Your task to perform on an android device: turn off smart reply in the gmail app Image 0: 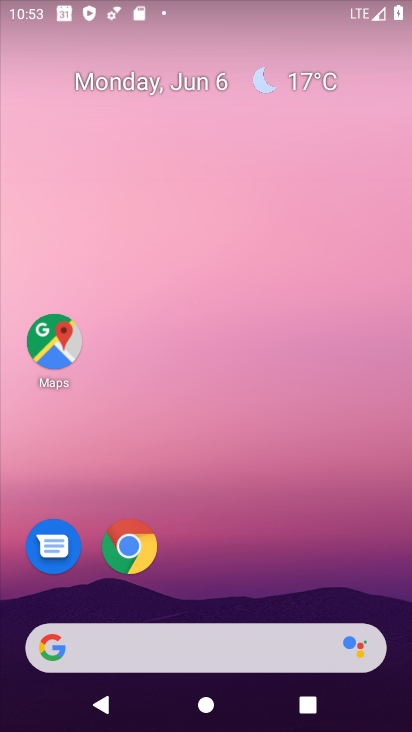
Step 0: drag from (257, 514) to (225, 19)
Your task to perform on an android device: turn off smart reply in the gmail app Image 1: 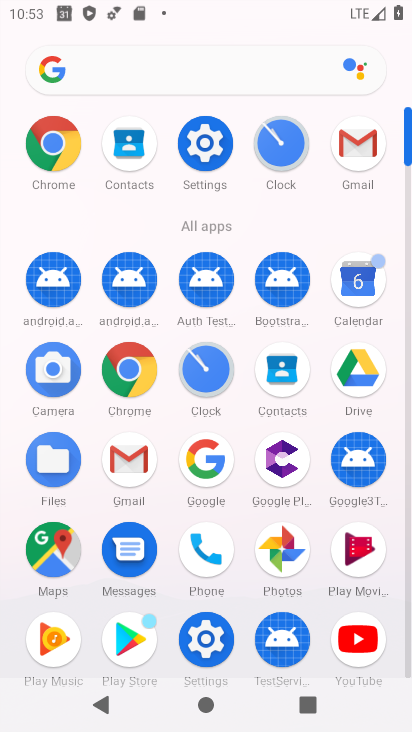
Step 1: click (349, 139)
Your task to perform on an android device: turn off smart reply in the gmail app Image 2: 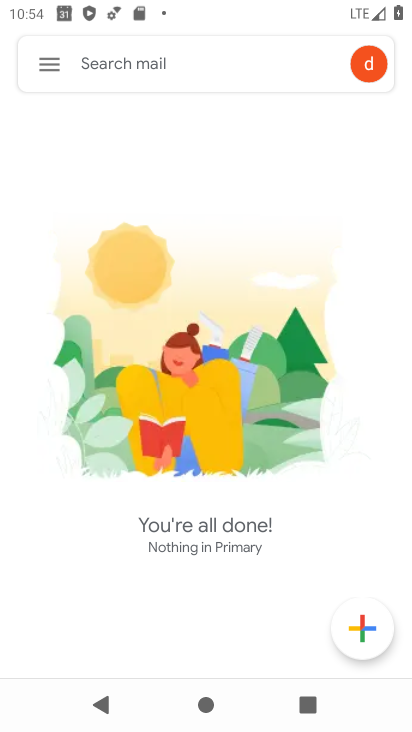
Step 2: click (45, 65)
Your task to perform on an android device: turn off smart reply in the gmail app Image 3: 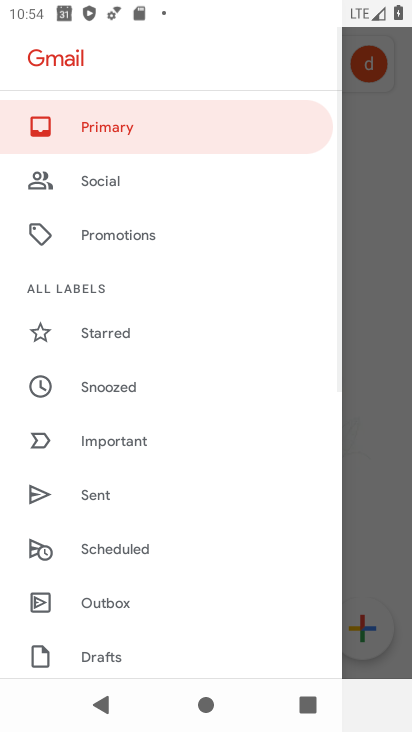
Step 3: drag from (149, 605) to (318, 145)
Your task to perform on an android device: turn off smart reply in the gmail app Image 4: 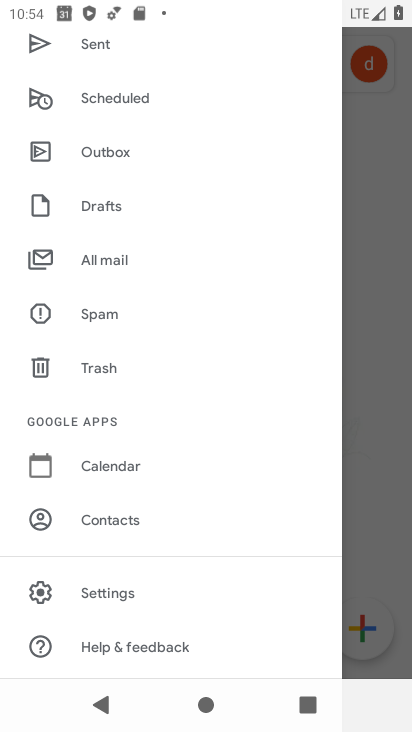
Step 4: click (123, 593)
Your task to perform on an android device: turn off smart reply in the gmail app Image 5: 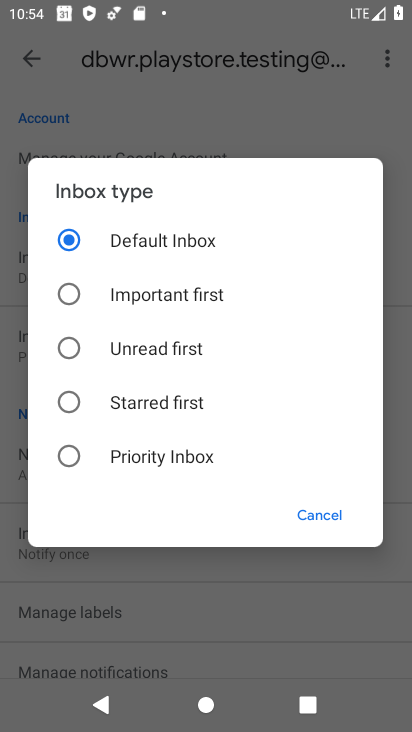
Step 5: click (338, 520)
Your task to perform on an android device: turn off smart reply in the gmail app Image 6: 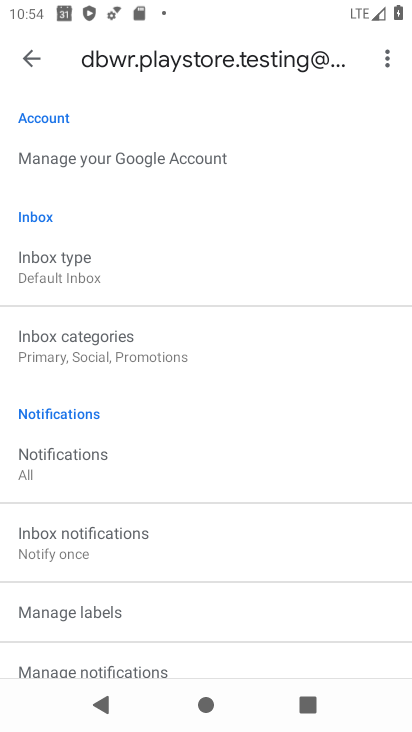
Step 6: drag from (126, 563) to (256, 161)
Your task to perform on an android device: turn off smart reply in the gmail app Image 7: 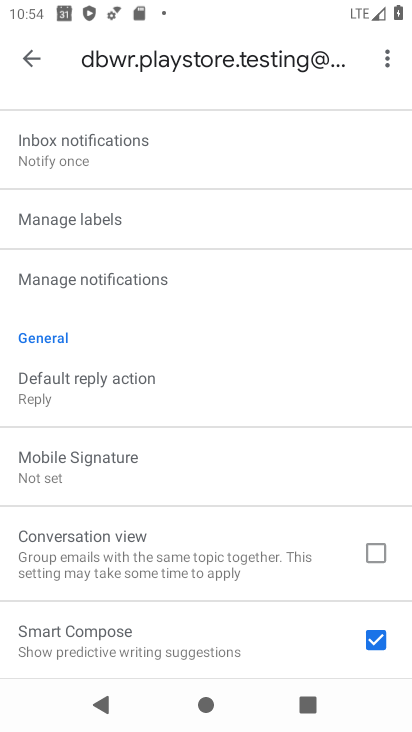
Step 7: drag from (208, 599) to (280, 269)
Your task to perform on an android device: turn off smart reply in the gmail app Image 8: 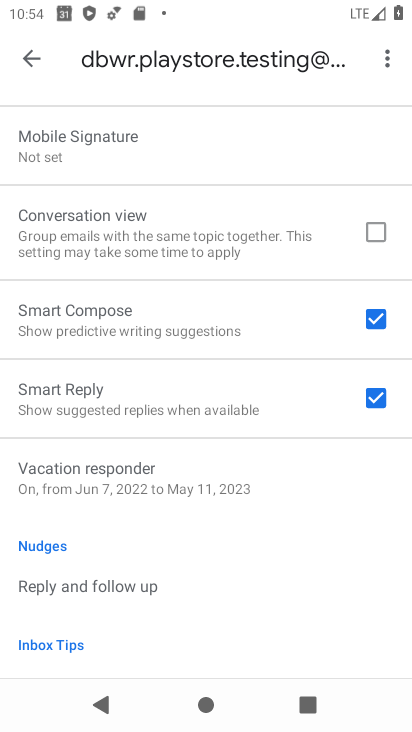
Step 8: click (379, 393)
Your task to perform on an android device: turn off smart reply in the gmail app Image 9: 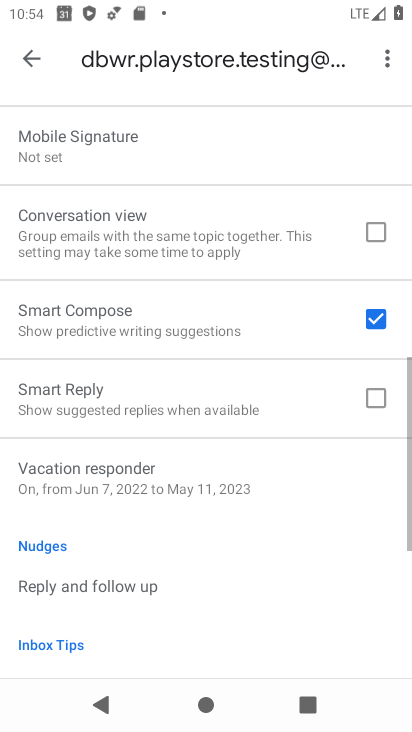
Step 9: task complete